Your task to perform on an android device: What's the weather? Image 0: 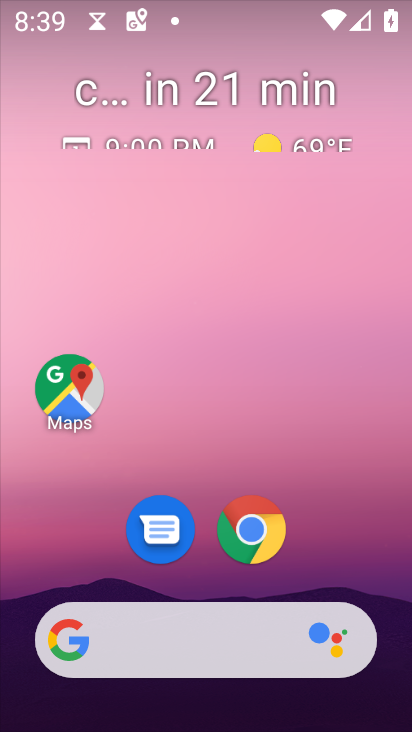
Step 0: click (220, 612)
Your task to perform on an android device: What's the weather? Image 1: 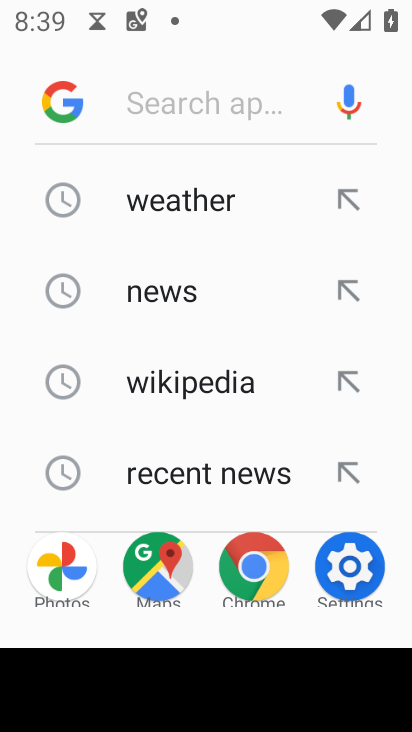
Step 1: click (221, 207)
Your task to perform on an android device: What's the weather? Image 2: 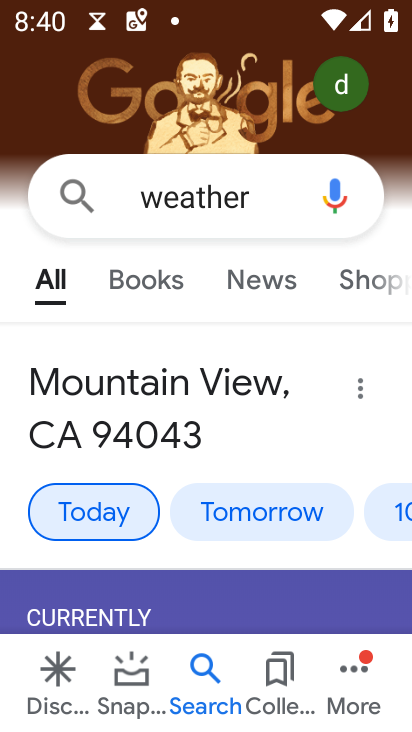
Step 2: task complete